Your task to perform on an android device: change keyboard looks Image 0: 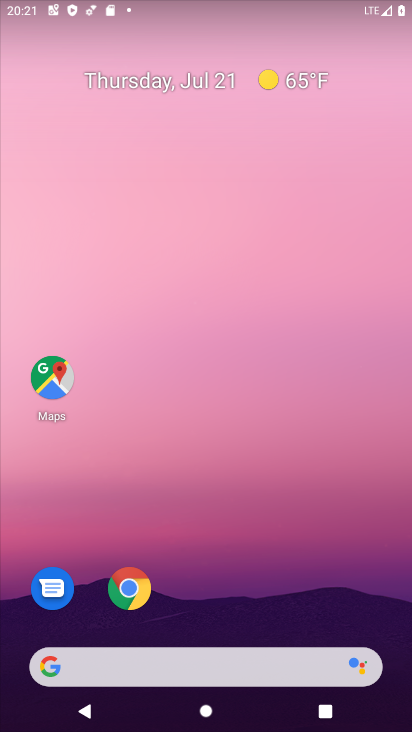
Step 0: drag from (219, 618) to (172, 54)
Your task to perform on an android device: change keyboard looks Image 1: 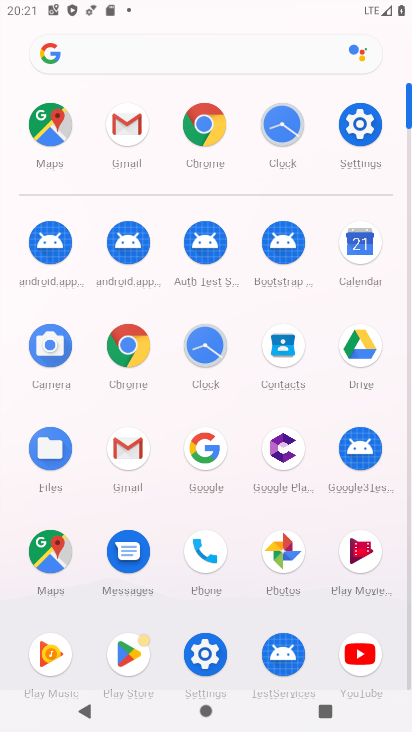
Step 1: click (364, 125)
Your task to perform on an android device: change keyboard looks Image 2: 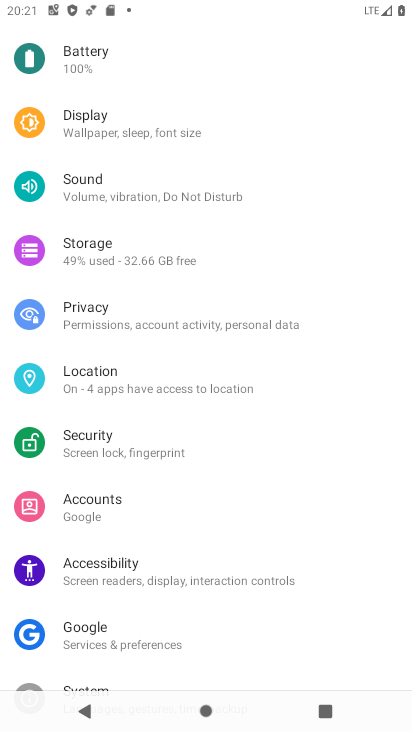
Step 2: click (112, 677)
Your task to perform on an android device: change keyboard looks Image 3: 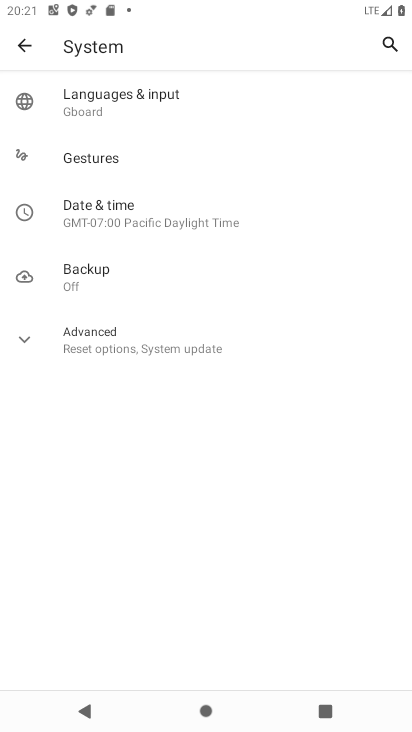
Step 3: click (83, 109)
Your task to perform on an android device: change keyboard looks Image 4: 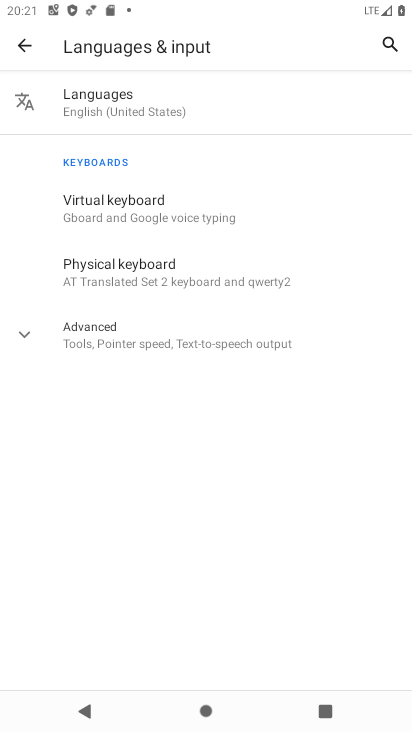
Step 4: click (111, 198)
Your task to perform on an android device: change keyboard looks Image 5: 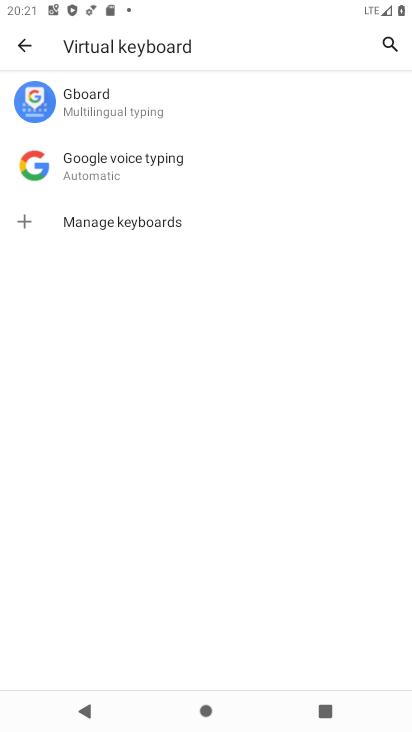
Step 5: click (102, 100)
Your task to perform on an android device: change keyboard looks Image 6: 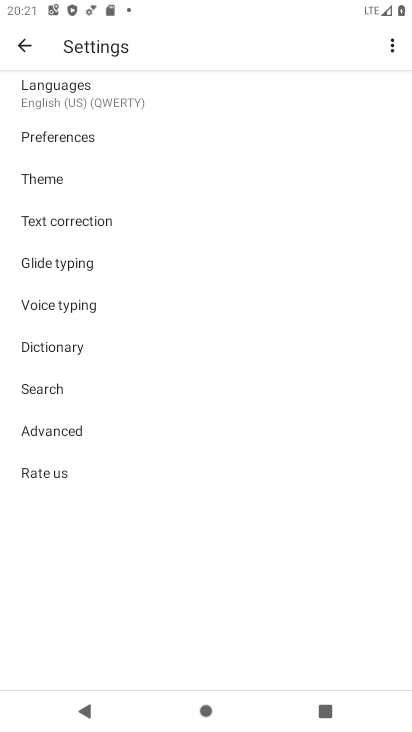
Step 6: click (70, 179)
Your task to perform on an android device: change keyboard looks Image 7: 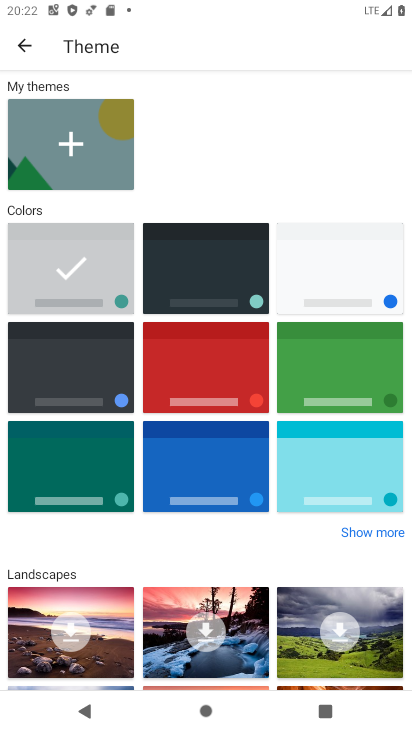
Step 7: click (228, 252)
Your task to perform on an android device: change keyboard looks Image 8: 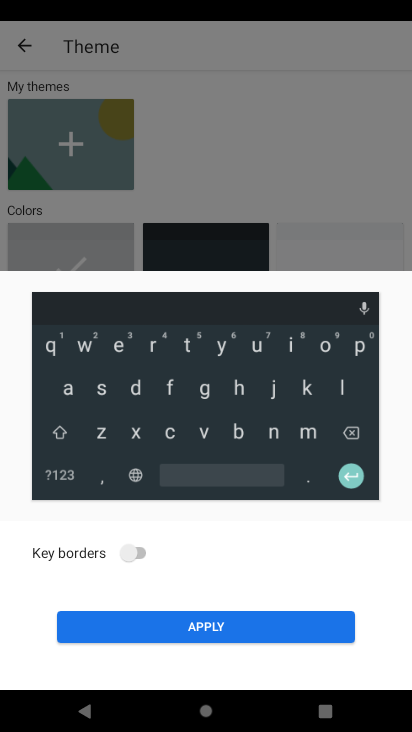
Step 8: click (171, 635)
Your task to perform on an android device: change keyboard looks Image 9: 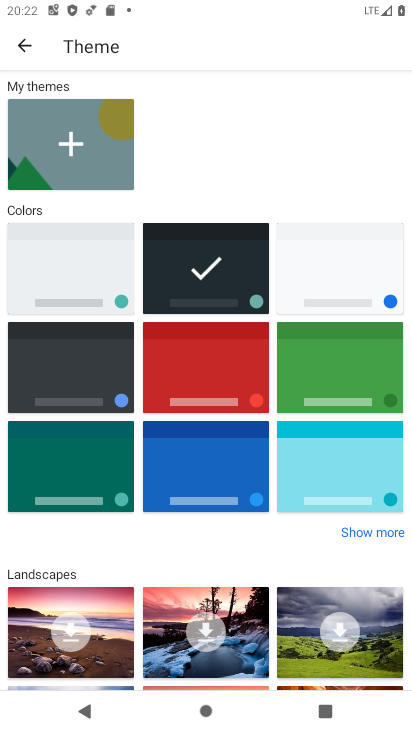
Step 9: task complete